Your task to perform on an android device: Open display settings Image 0: 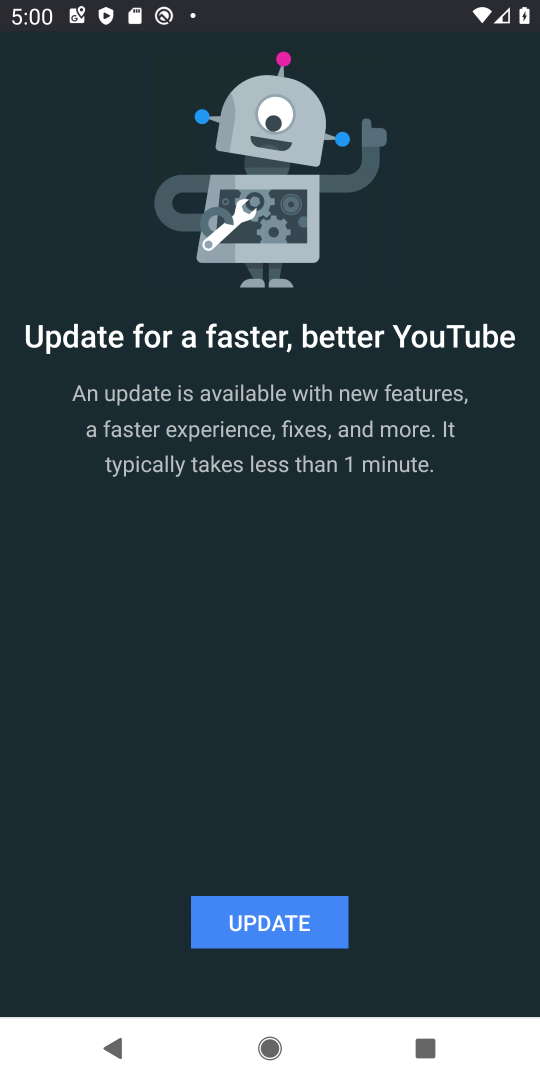
Step 0: press home button
Your task to perform on an android device: Open display settings Image 1: 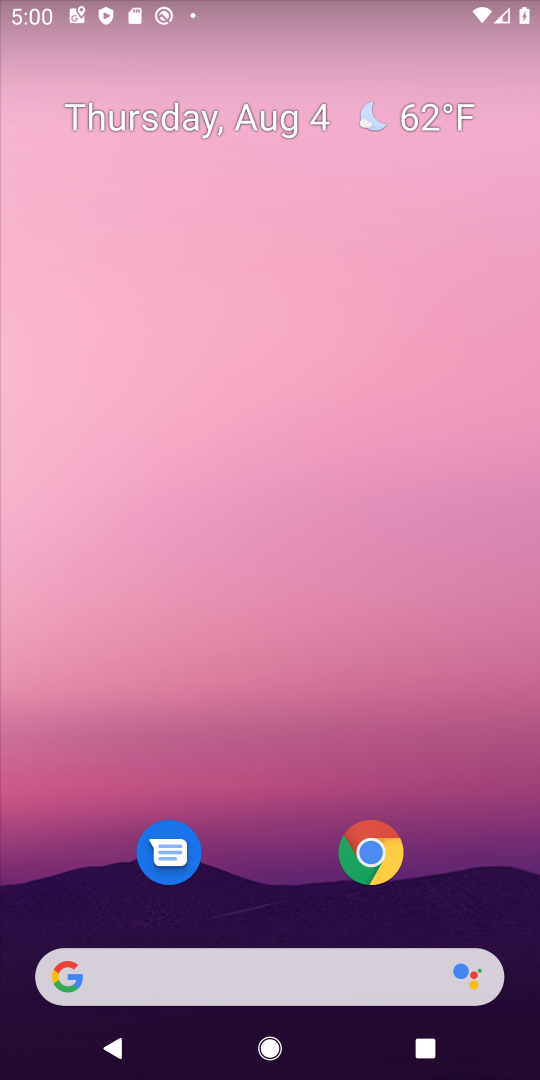
Step 1: drag from (267, 895) to (276, 160)
Your task to perform on an android device: Open display settings Image 2: 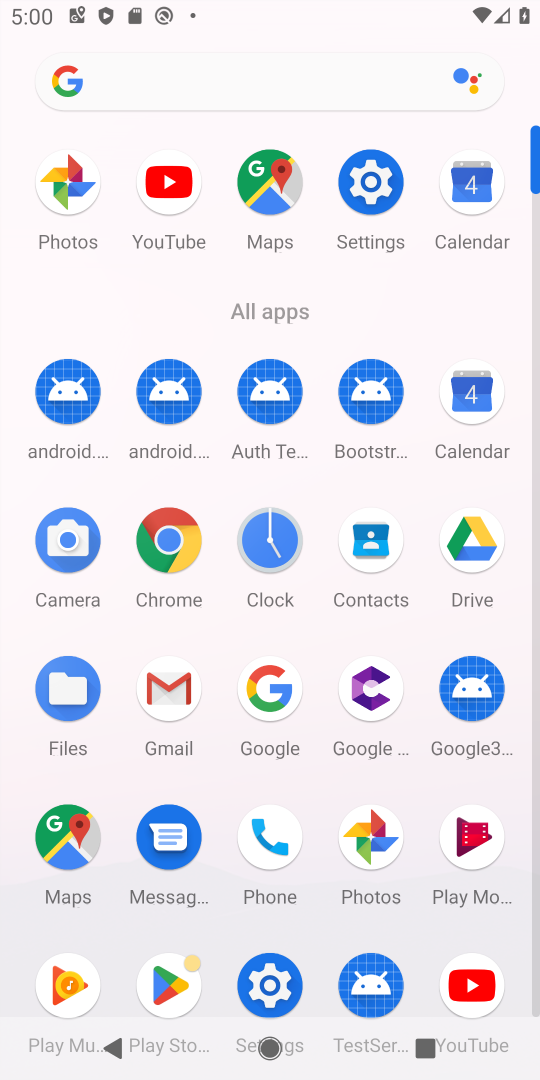
Step 2: click (368, 172)
Your task to perform on an android device: Open display settings Image 3: 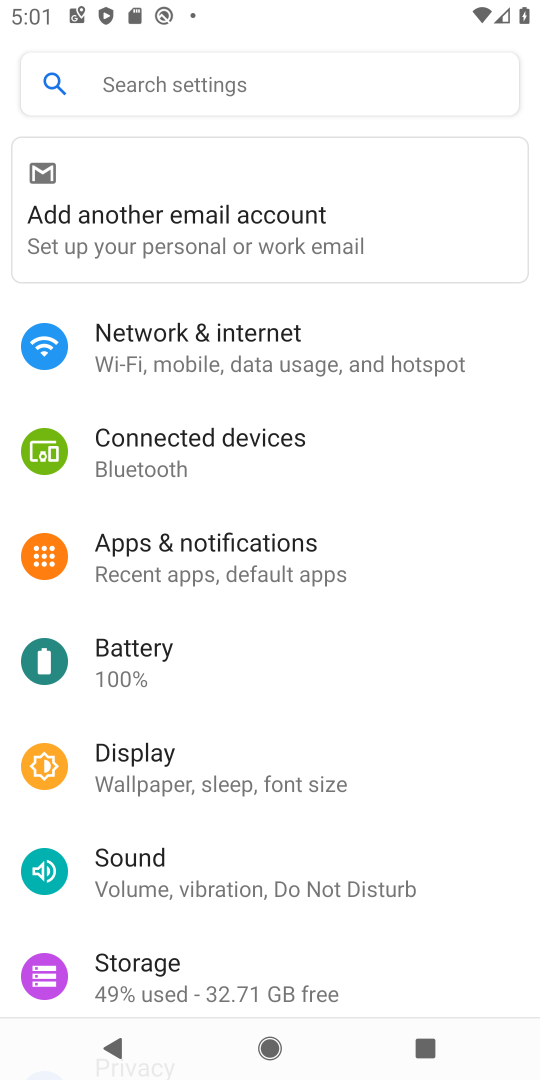
Step 3: click (120, 765)
Your task to perform on an android device: Open display settings Image 4: 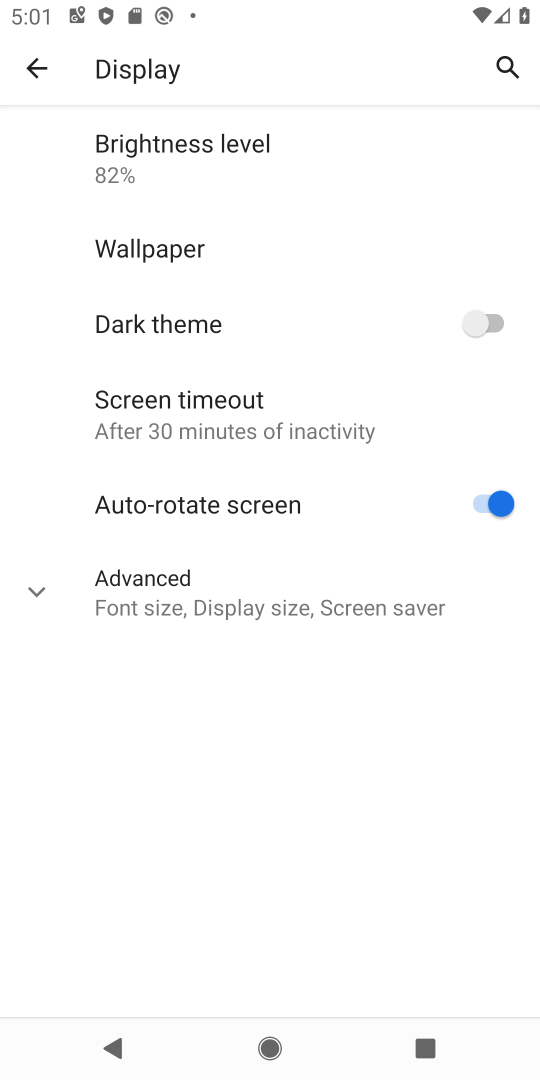
Step 4: task complete